Your task to perform on an android device: How much does a 3 bedroom apartment rent for in Miami? Image 0: 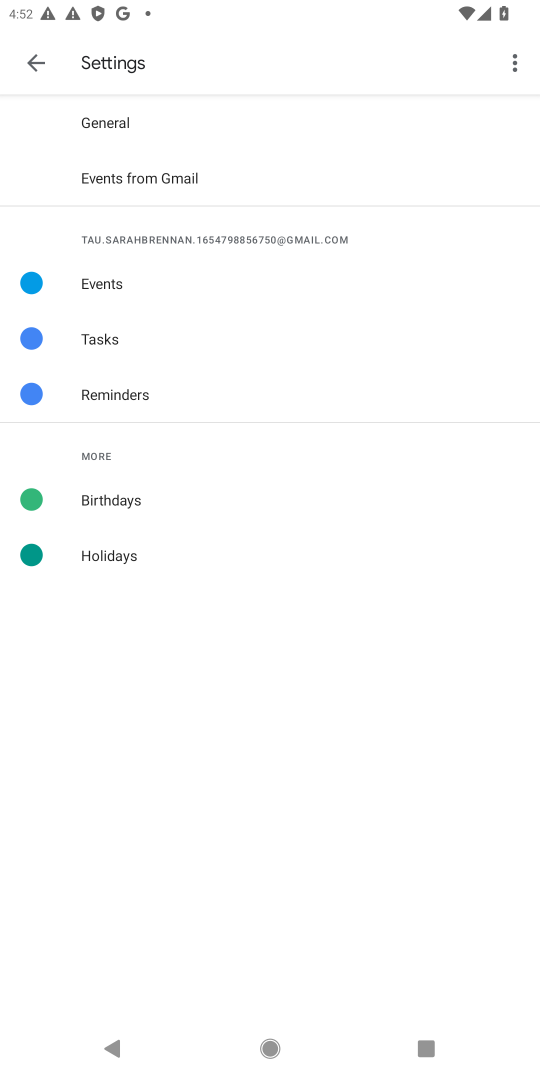
Step 0: press home button
Your task to perform on an android device: How much does a 3 bedroom apartment rent for in Miami? Image 1: 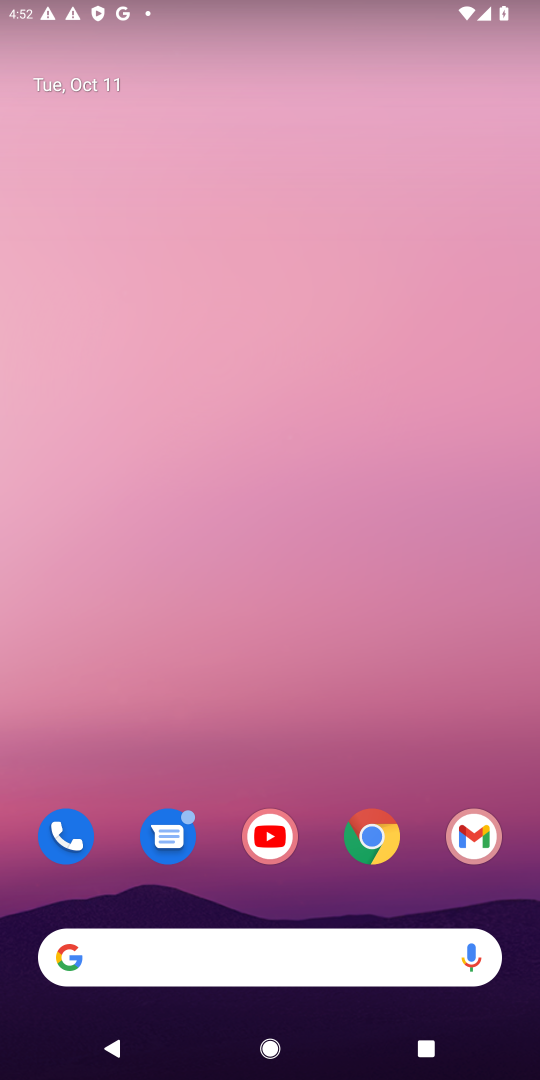
Step 1: click (373, 838)
Your task to perform on an android device: How much does a 3 bedroom apartment rent for in Miami? Image 2: 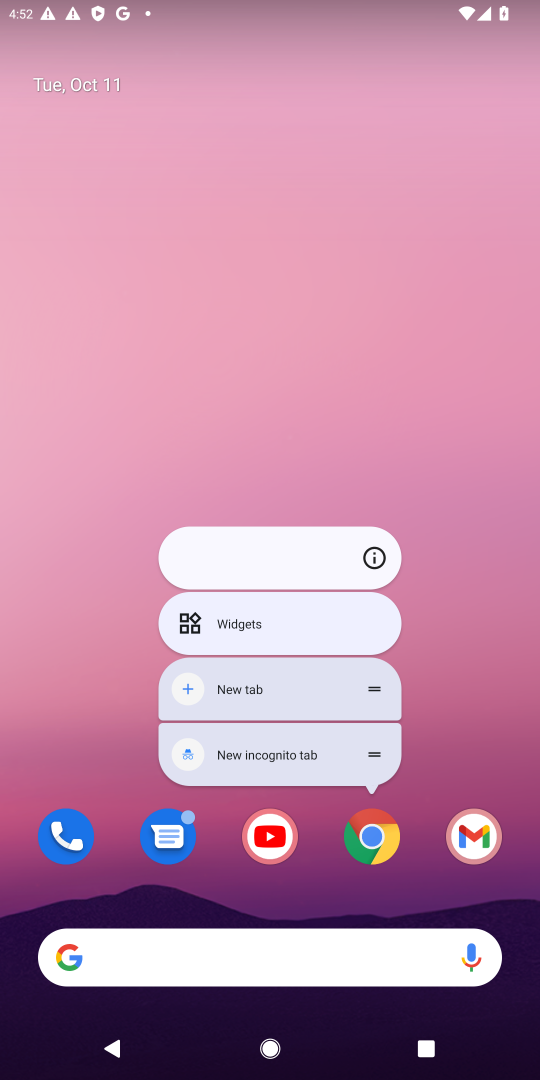
Step 2: click (365, 841)
Your task to perform on an android device: How much does a 3 bedroom apartment rent for in Miami? Image 3: 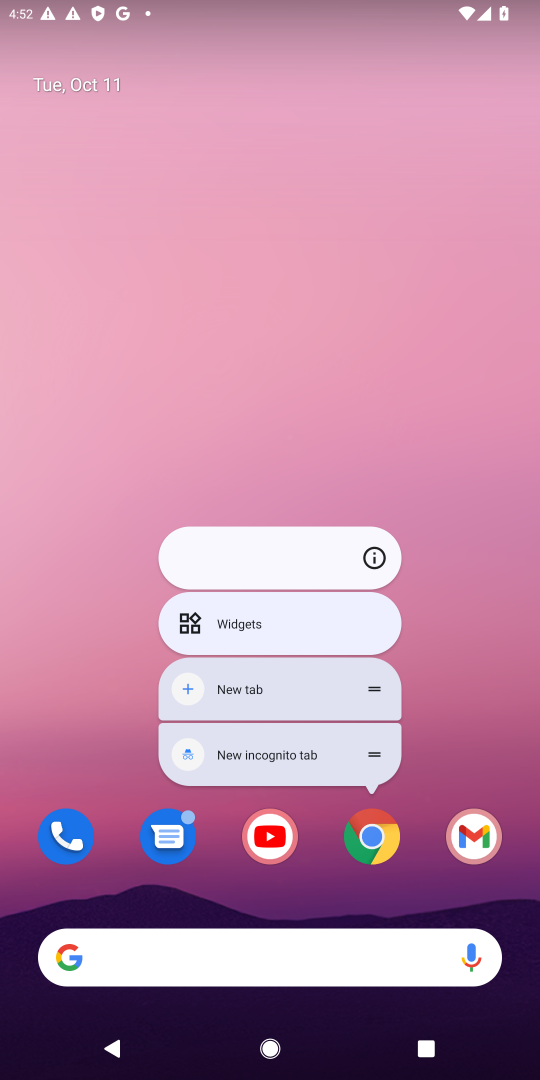
Step 3: click (366, 841)
Your task to perform on an android device: How much does a 3 bedroom apartment rent for in Miami? Image 4: 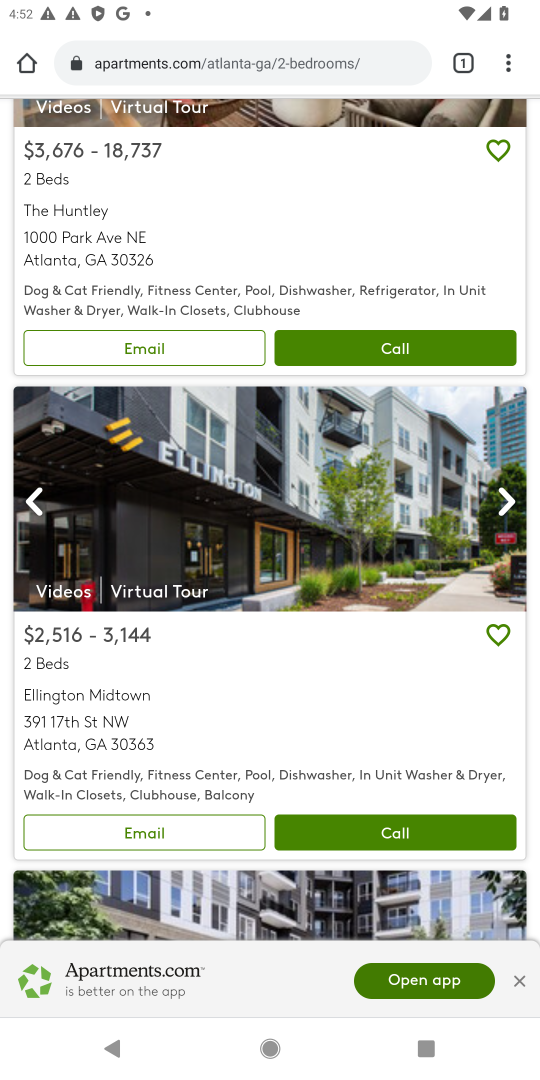
Step 4: click (237, 54)
Your task to perform on an android device: How much does a 3 bedroom apartment rent for in Miami? Image 5: 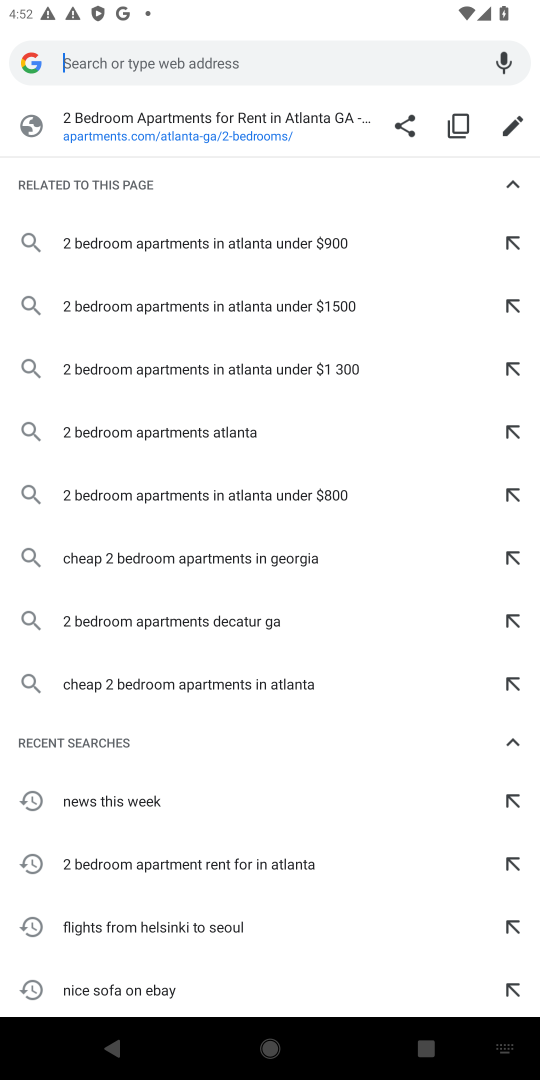
Step 5: type "3 bedroom apartment rent for in Miami"
Your task to perform on an android device: How much does a 3 bedroom apartment rent for in Miami? Image 6: 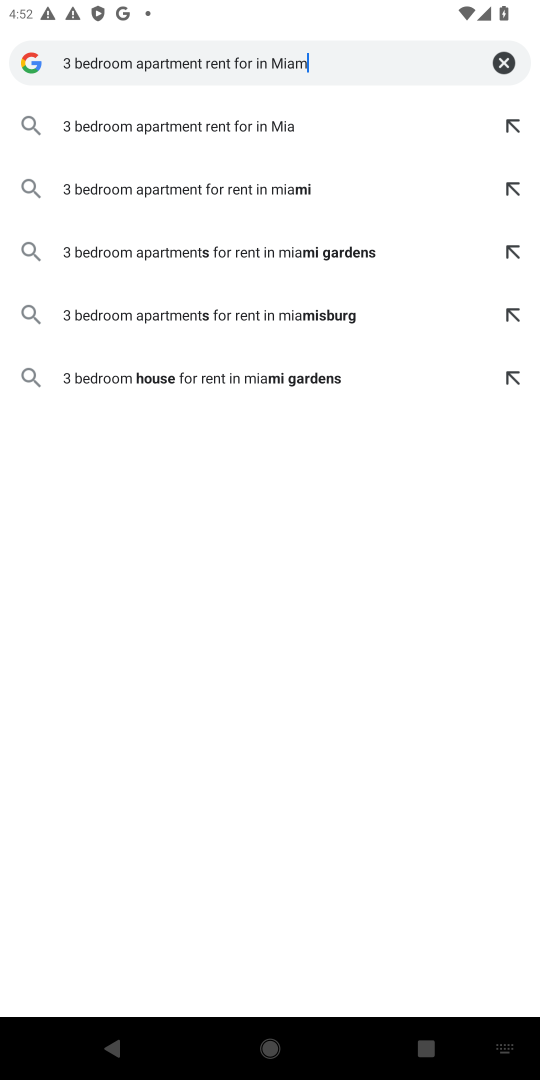
Step 6: press enter
Your task to perform on an android device: How much does a 3 bedroom apartment rent for in Miami? Image 7: 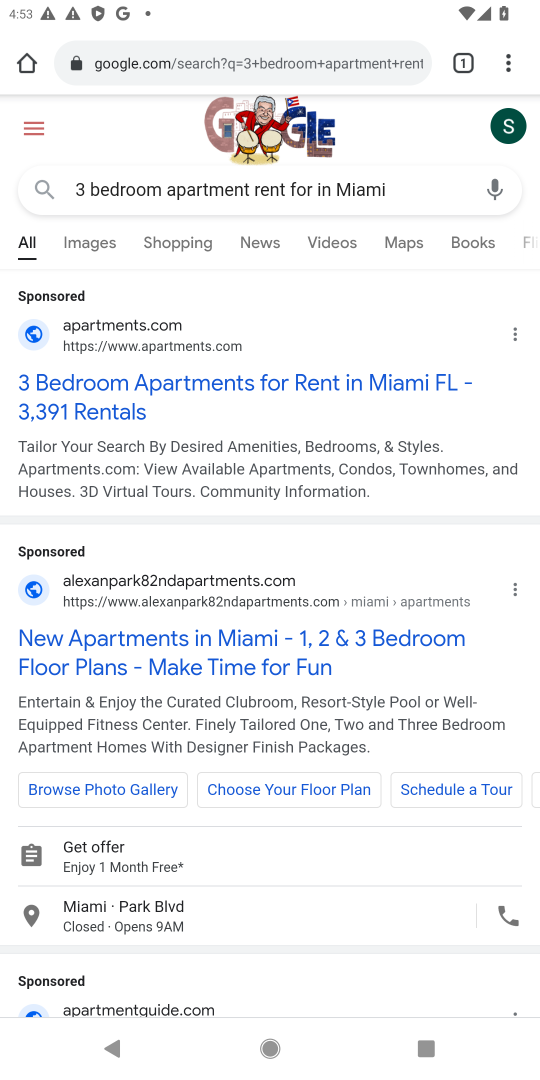
Step 7: click (255, 381)
Your task to perform on an android device: How much does a 3 bedroom apartment rent for in Miami? Image 8: 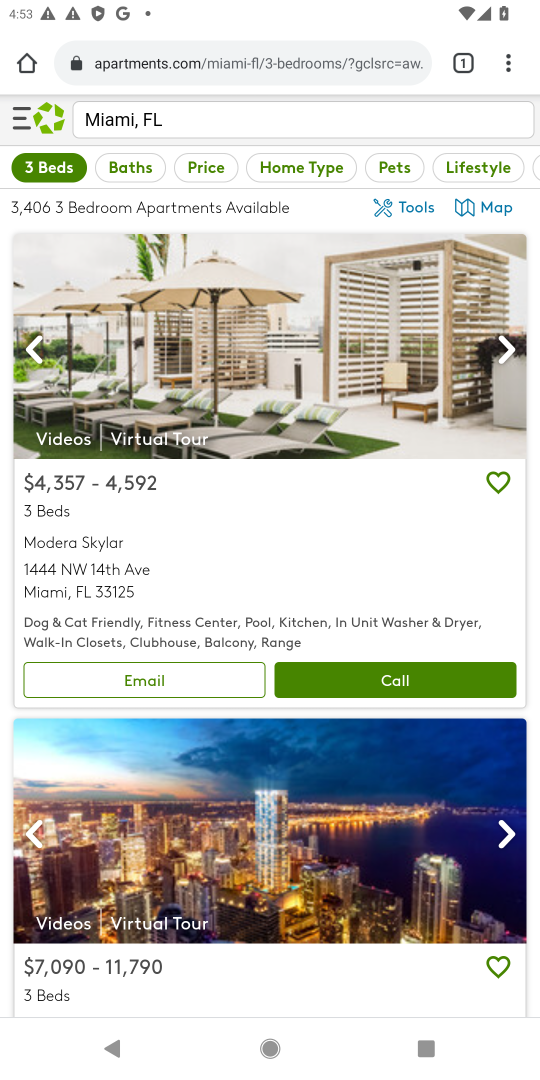
Step 8: task complete